Your task to perform on an android device: set an alarm Image 0: 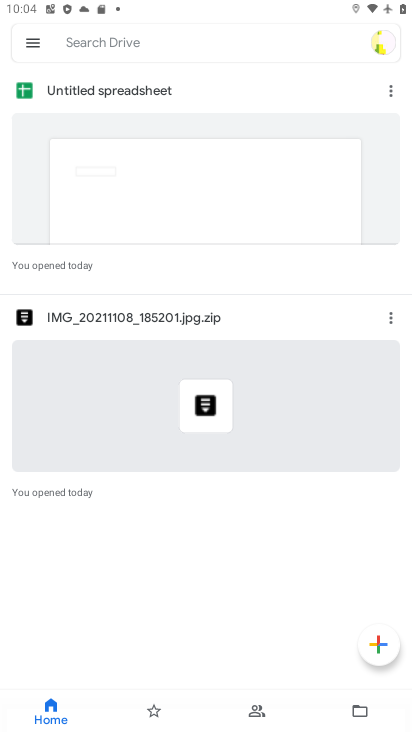
Step 0: press home button
Your task to perform on an android device: set an alarm Image 1: 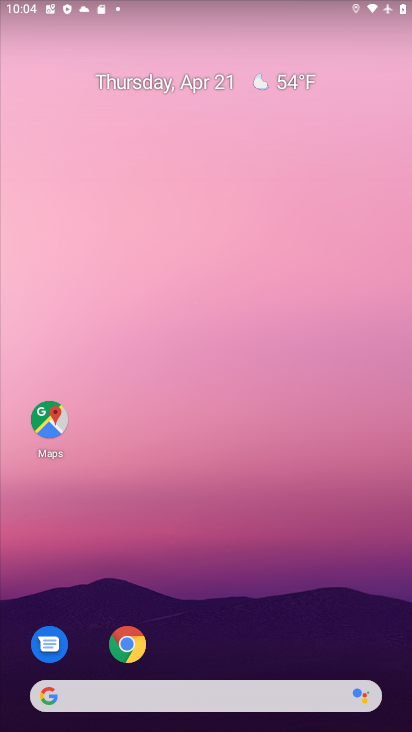
Step 1: drag from (184, 457) to (129, 106)
Your task to perform on an android device: set an alarm Image 2: 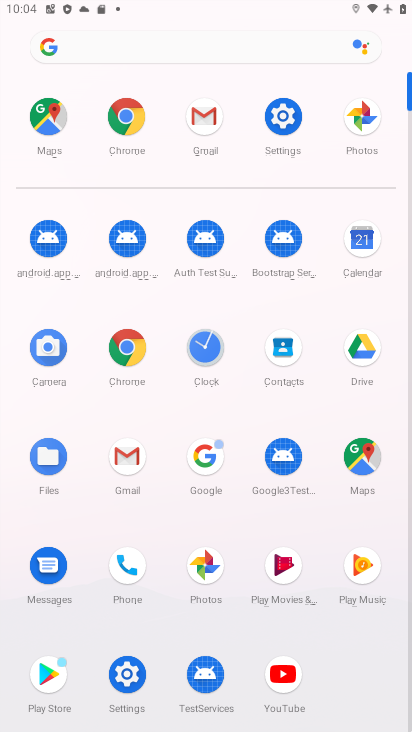
Step 2: click (205, 334)
Your task to perform on an android device: set an alarm Image 3: 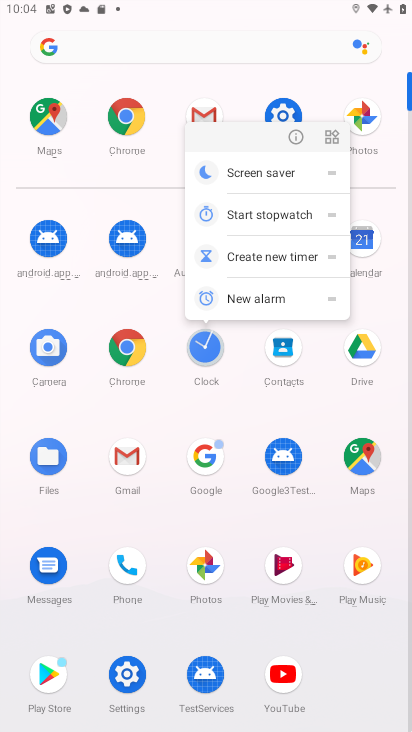
Step 3: click (205, 352)
Your task to perform on an android device: set an alarm Image 4: 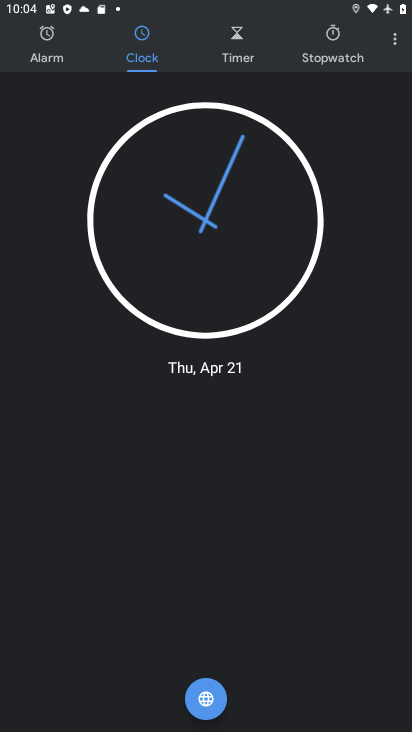
Step 4: click (49, 45)
Your task to perform on an android device: set an alarm Image 5: 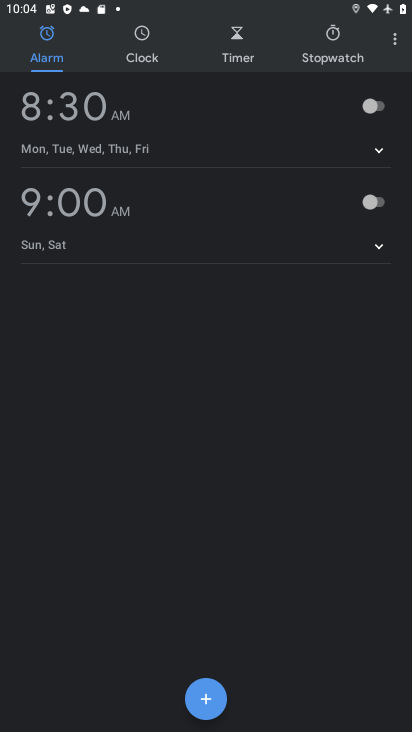
Step 5: click (210, 687)
Your task to perform on an android device: set an alarm Image 6: 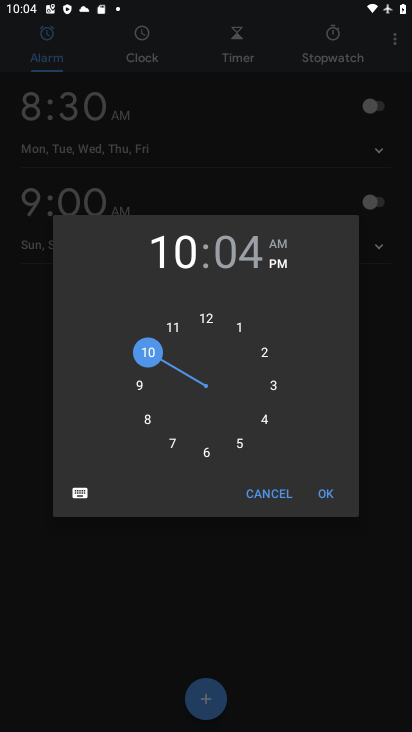
Step 6: click (329, 495)
Your task to perform on an android device: set an alarm Image 7: 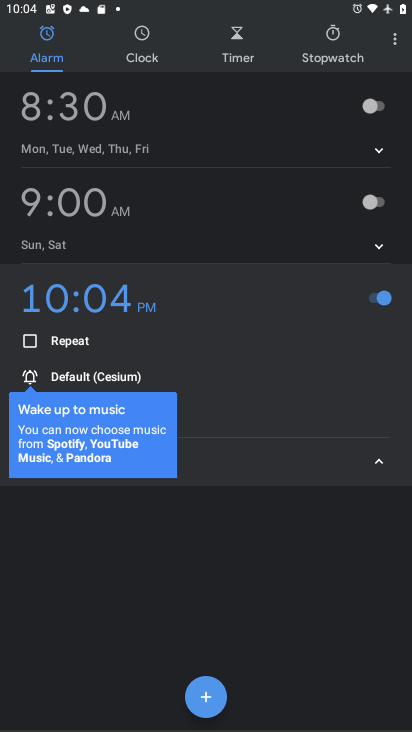
Step 7: click (383, 466)
Your task to perform on an android device: set an alarm Image 8: 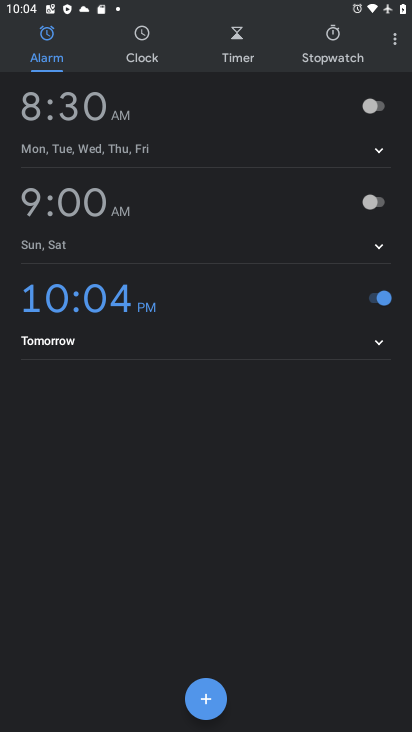
Step 8: task complete